Your task to perform on an android device: Add dell xps to the cart on target.com, then select checkout. Image 0: 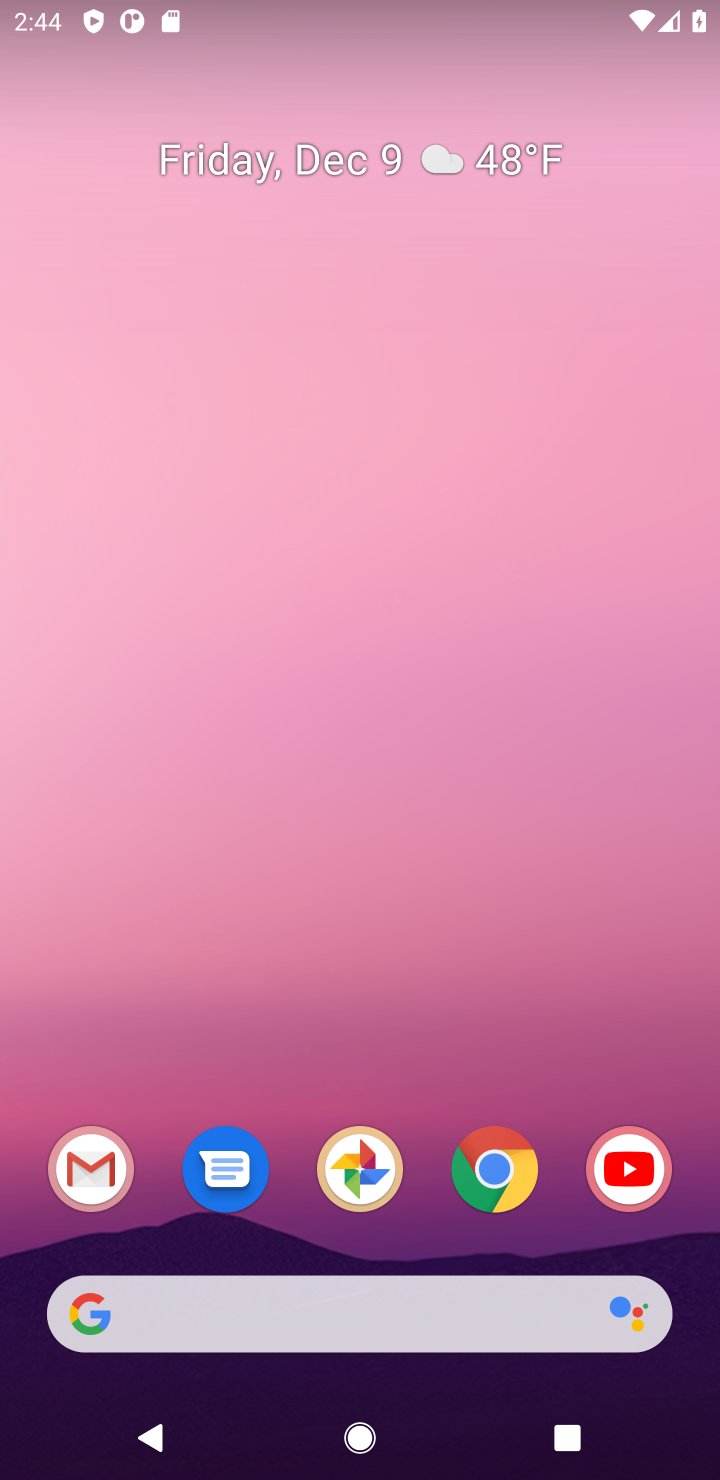
Step 0: click (502, 1149)
Your task to perform on an android device: Add dell xps to the cart on target.com, then select checkout. Image 1: 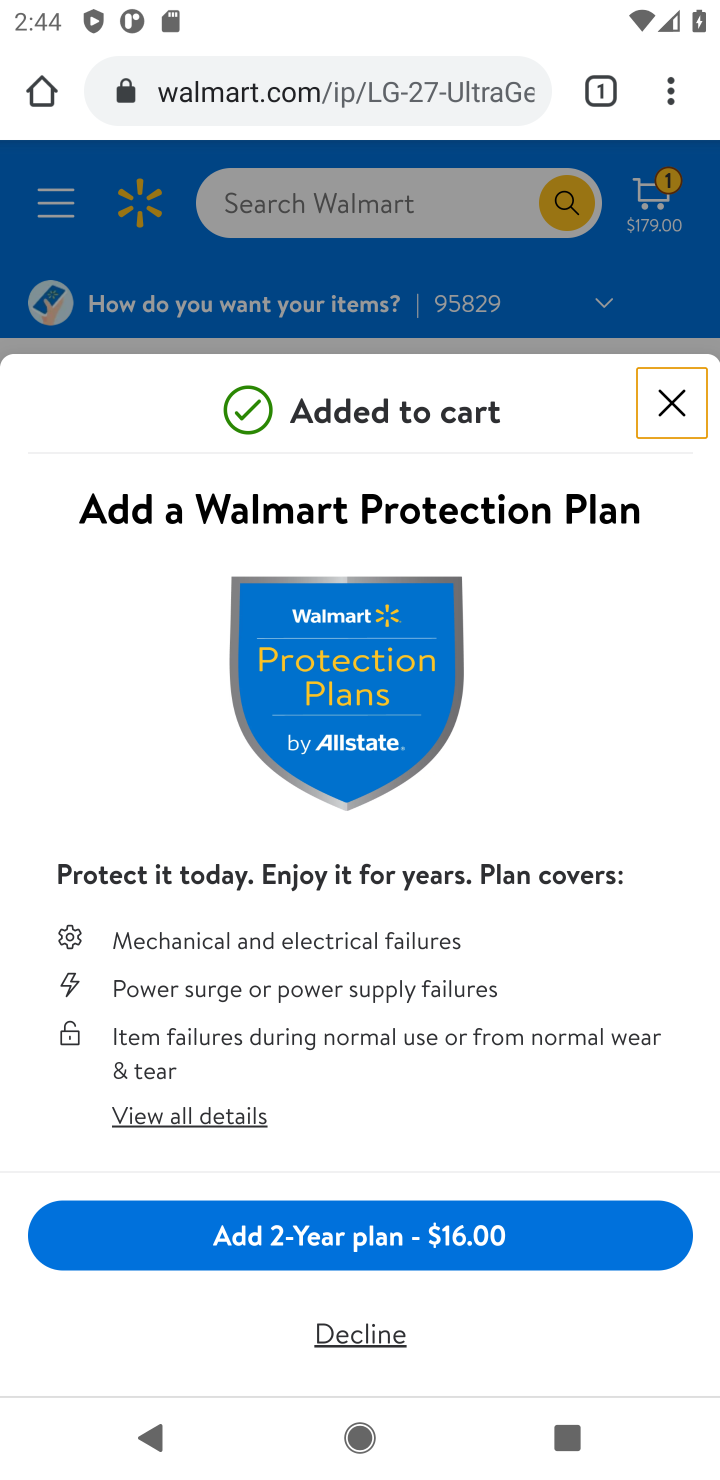
Step 1: click (338, 109)
Your task to perform on an android device: Add dell xps to the cart on target.com, then select checkout. Image 2: 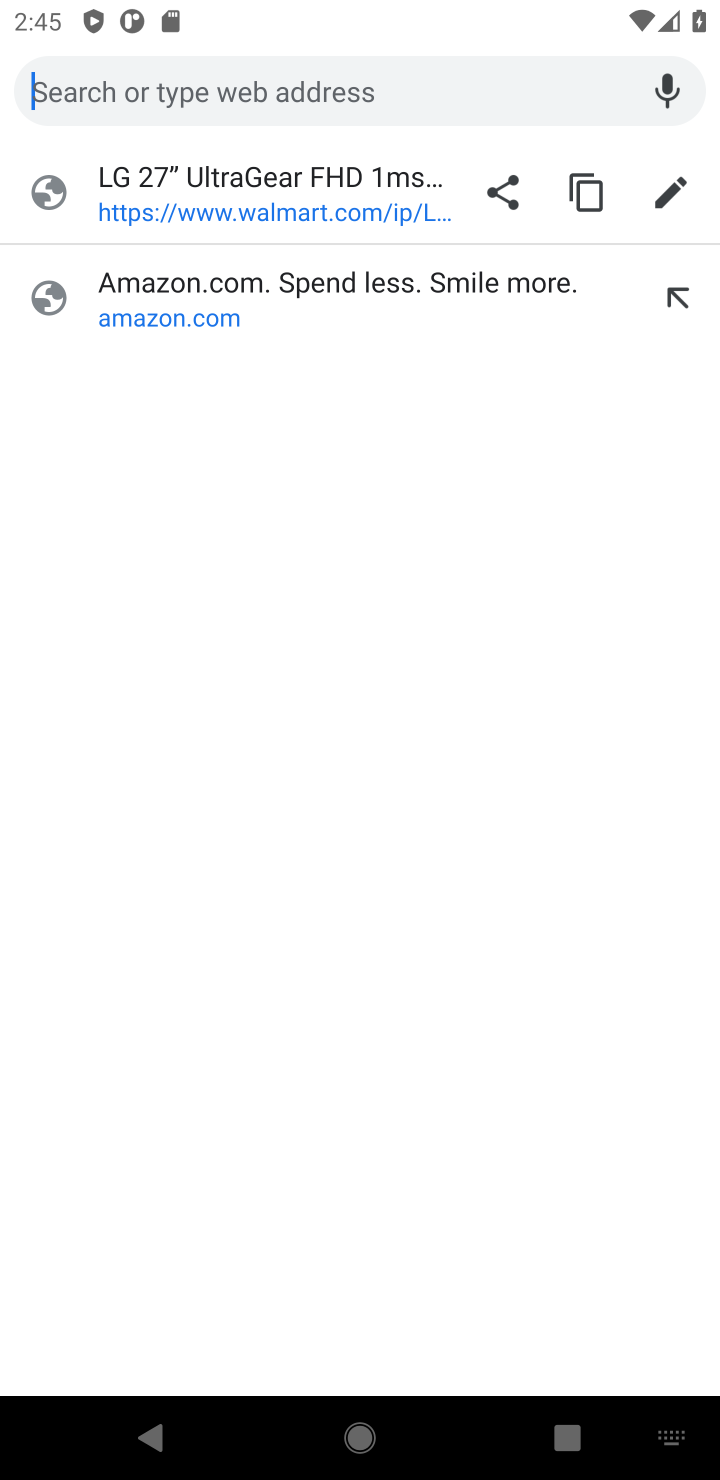
Step 2: press enter
Your task to perform on an android device: Add dell xps to the cart on target.com, then select checkout. Image 3: 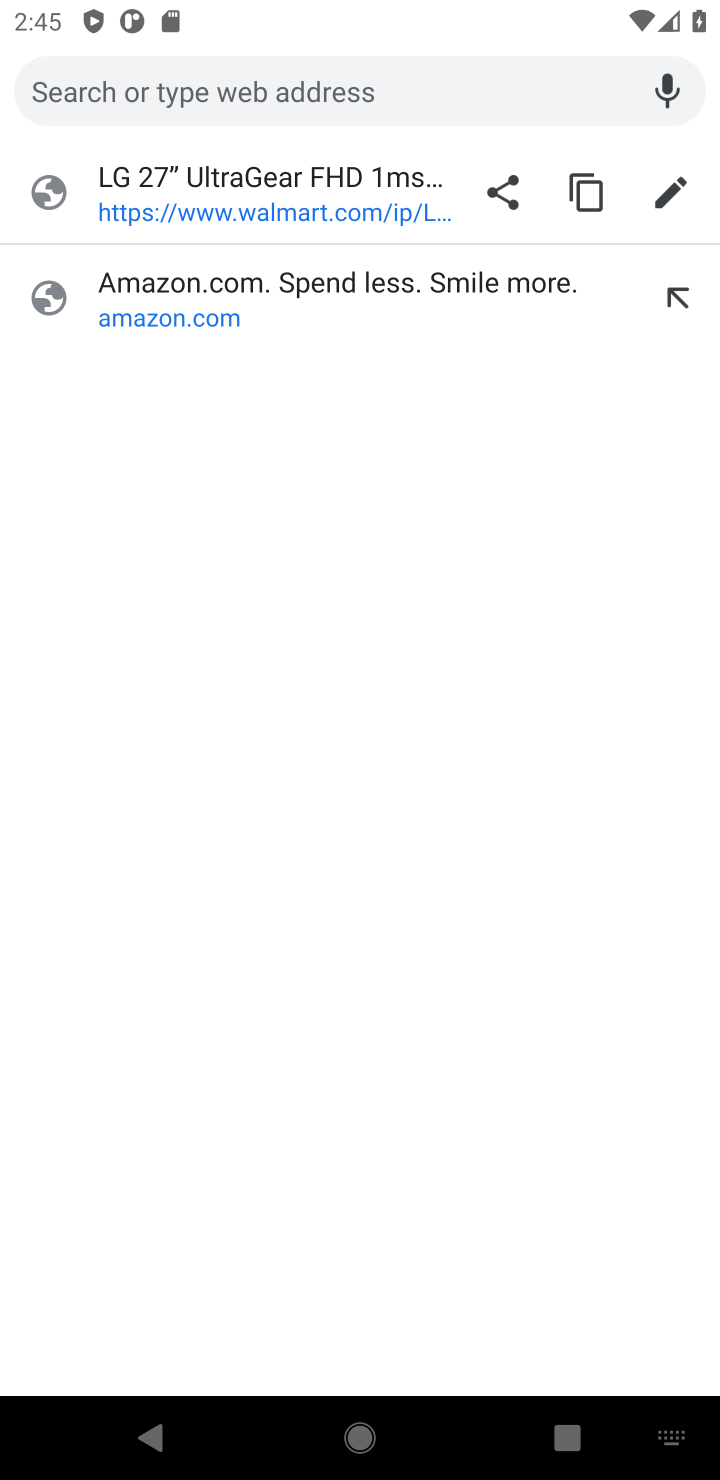
Step 3: type "target.com"
Your task to perform on an android device: Add dell xps to the cart on target.com, then select checkout. Image 4: 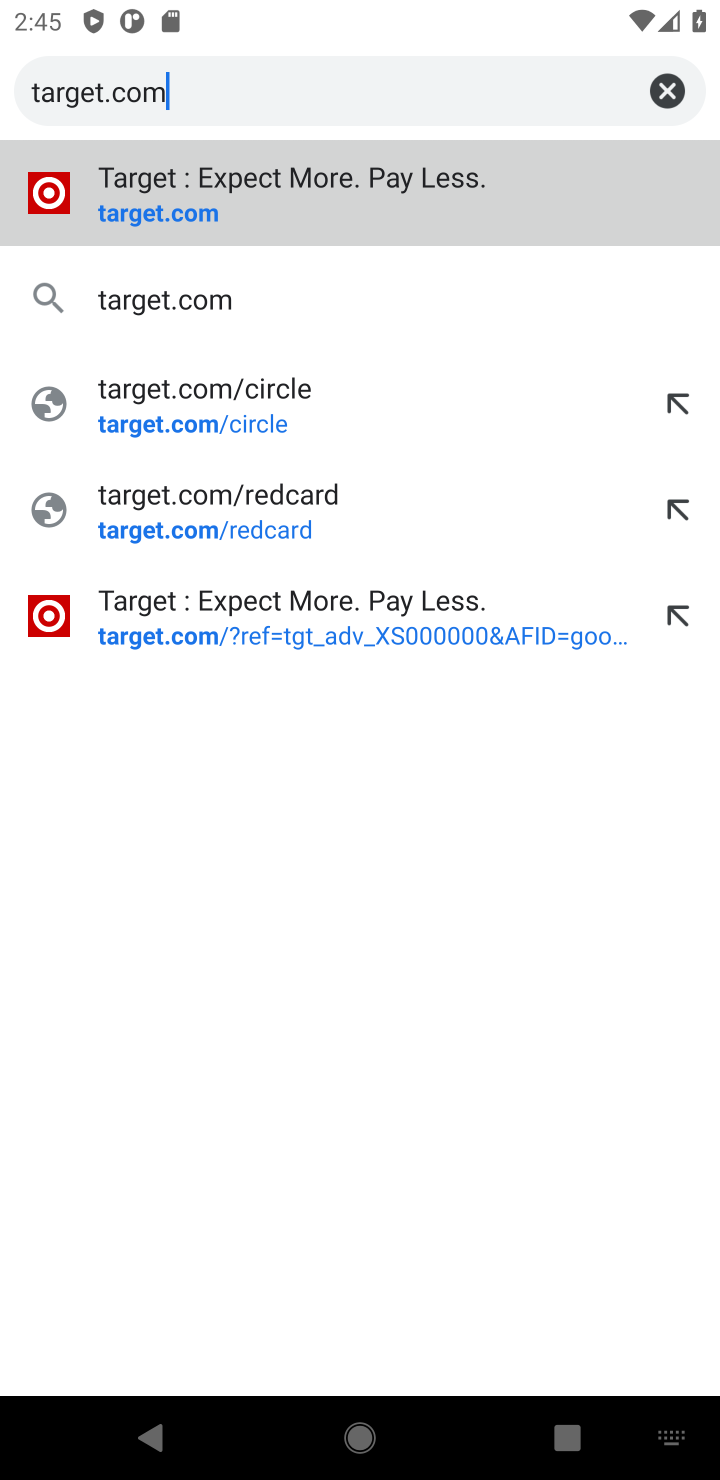
Step 4: click (203, 304)
Your task to perform on an android device: Add dell xps to the cart on target.com, then select checkout. Image 5: 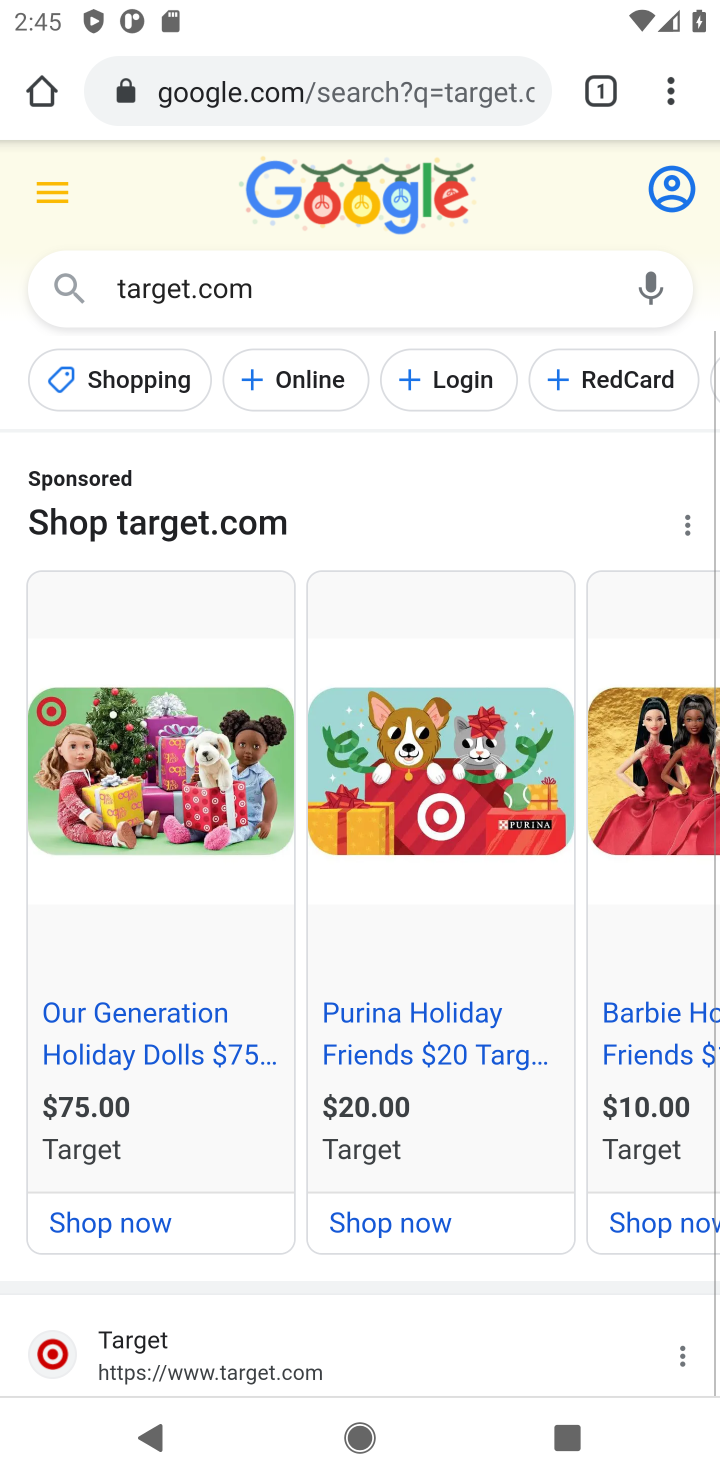
Step 5: click (226, 1368)
Your task to perform on an android device: Add dell xps to the cart on target.com, then select checkout. Image 6: 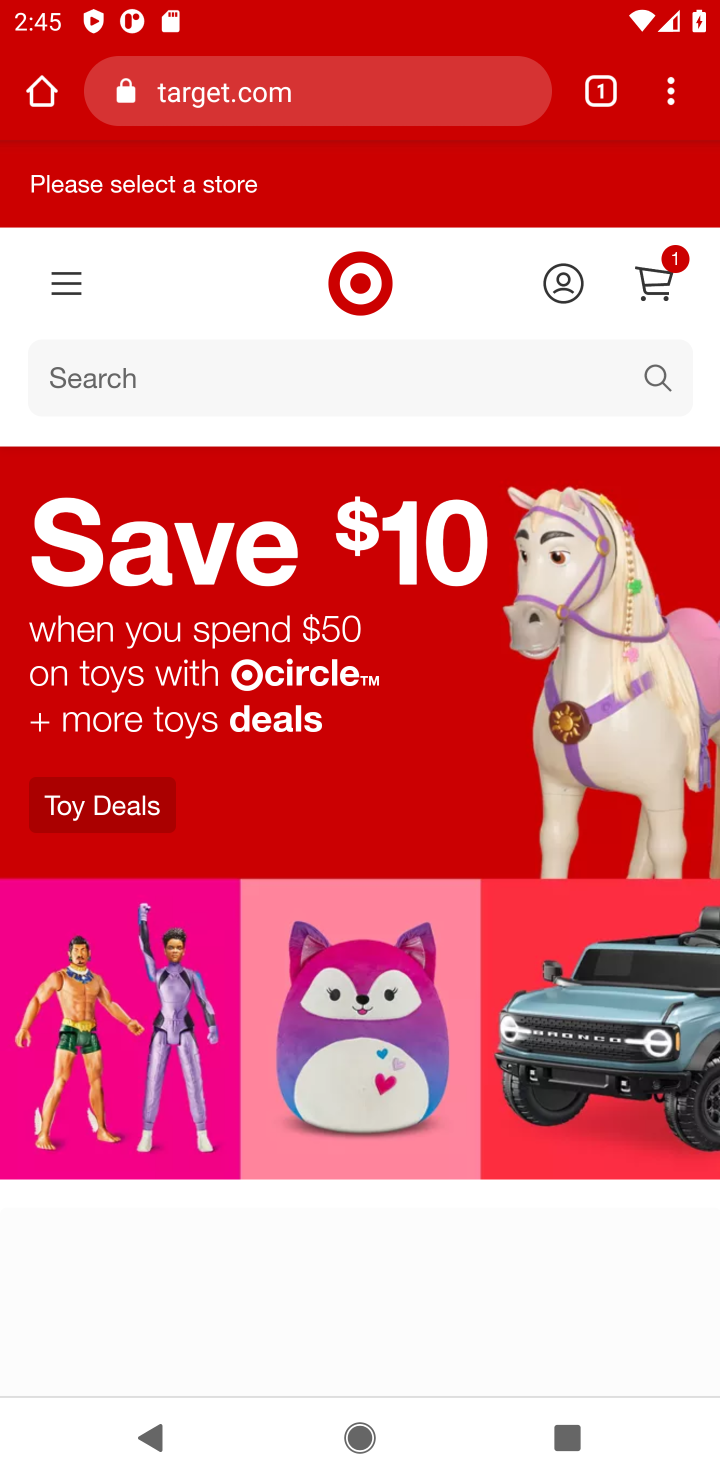
Step 6: click (654, 373)
Your task to perform on an android device: Add dell xps to the cart on target.com, then select checkout. Image 7: 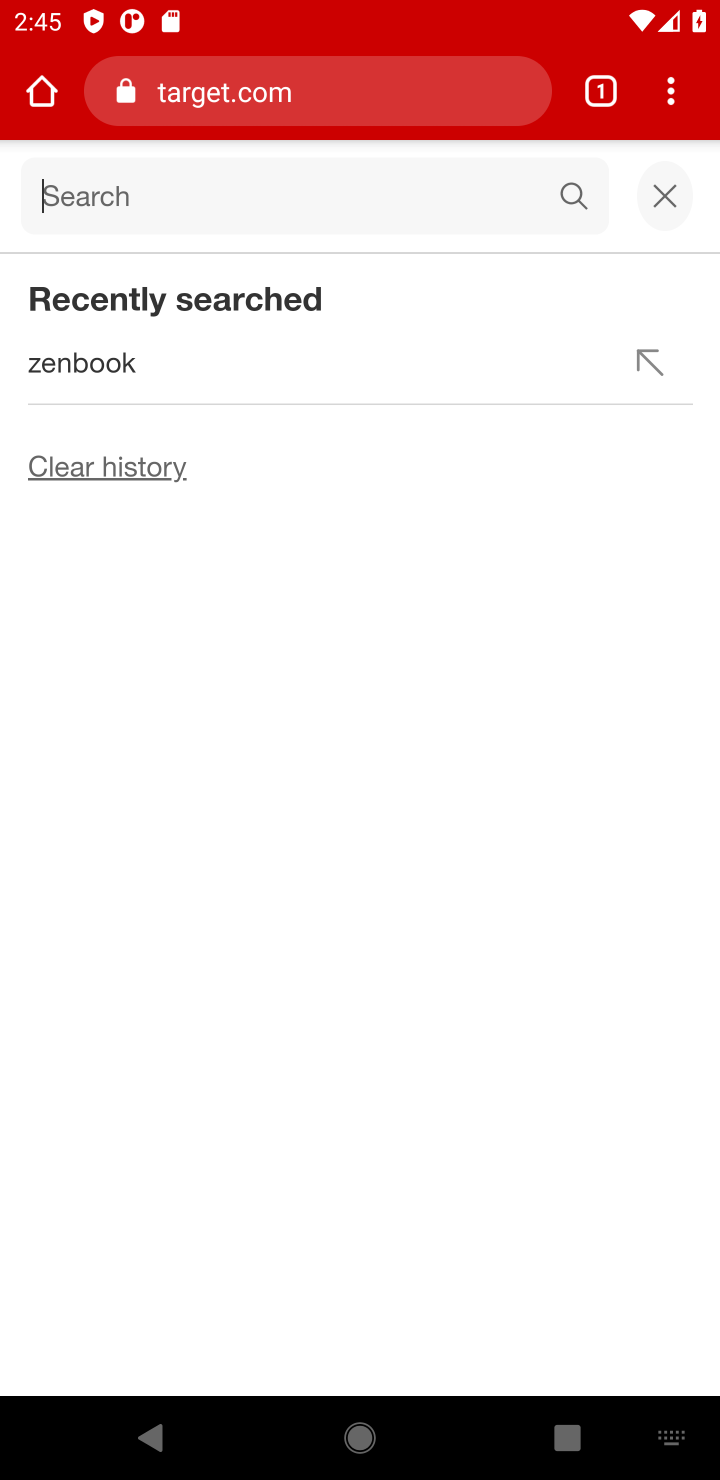
Step 7: press enter
Your task to perform on an android device: Add dell xps to the cart on target.com, then select checkout. Image 8: 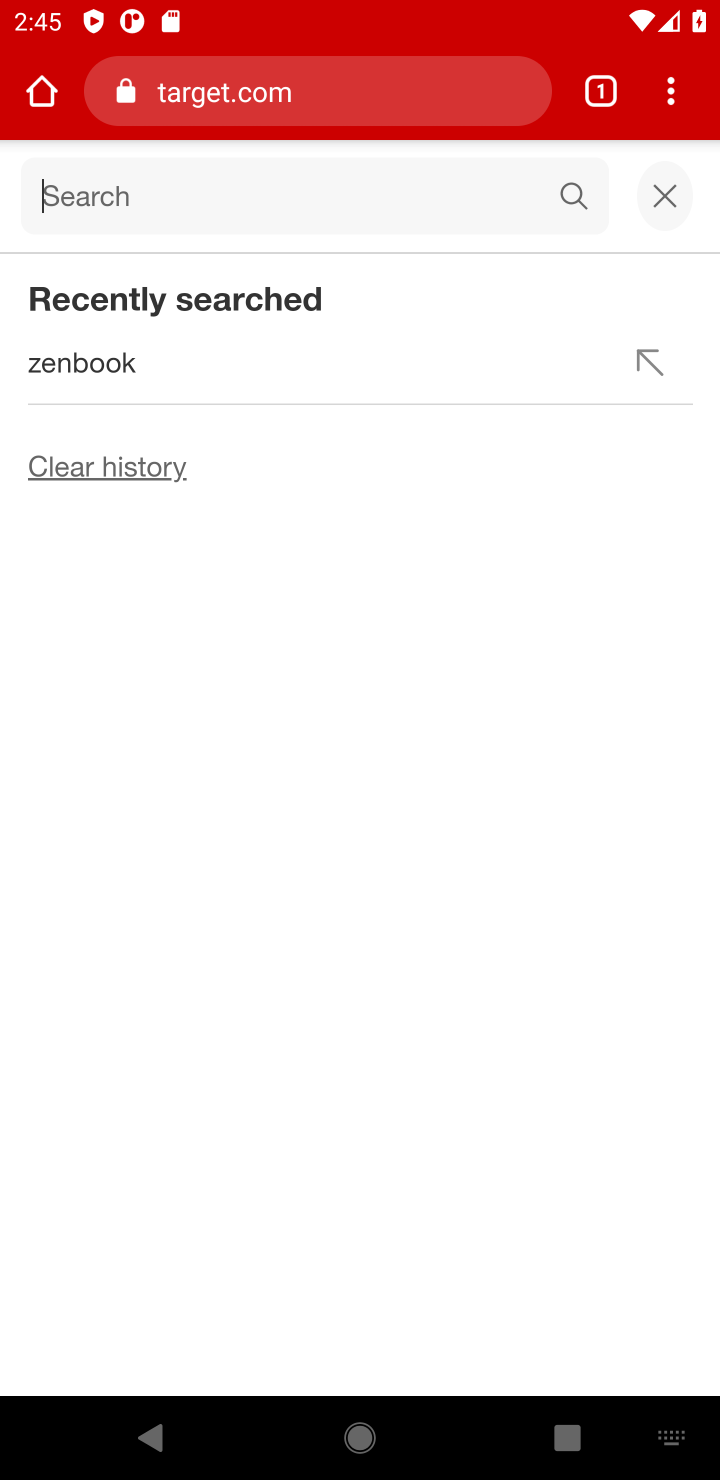
Step 8: type "dell xps"
Your task to perform on an android device: Add dell xps to the cart on target.com, then select checkout. Image 9: 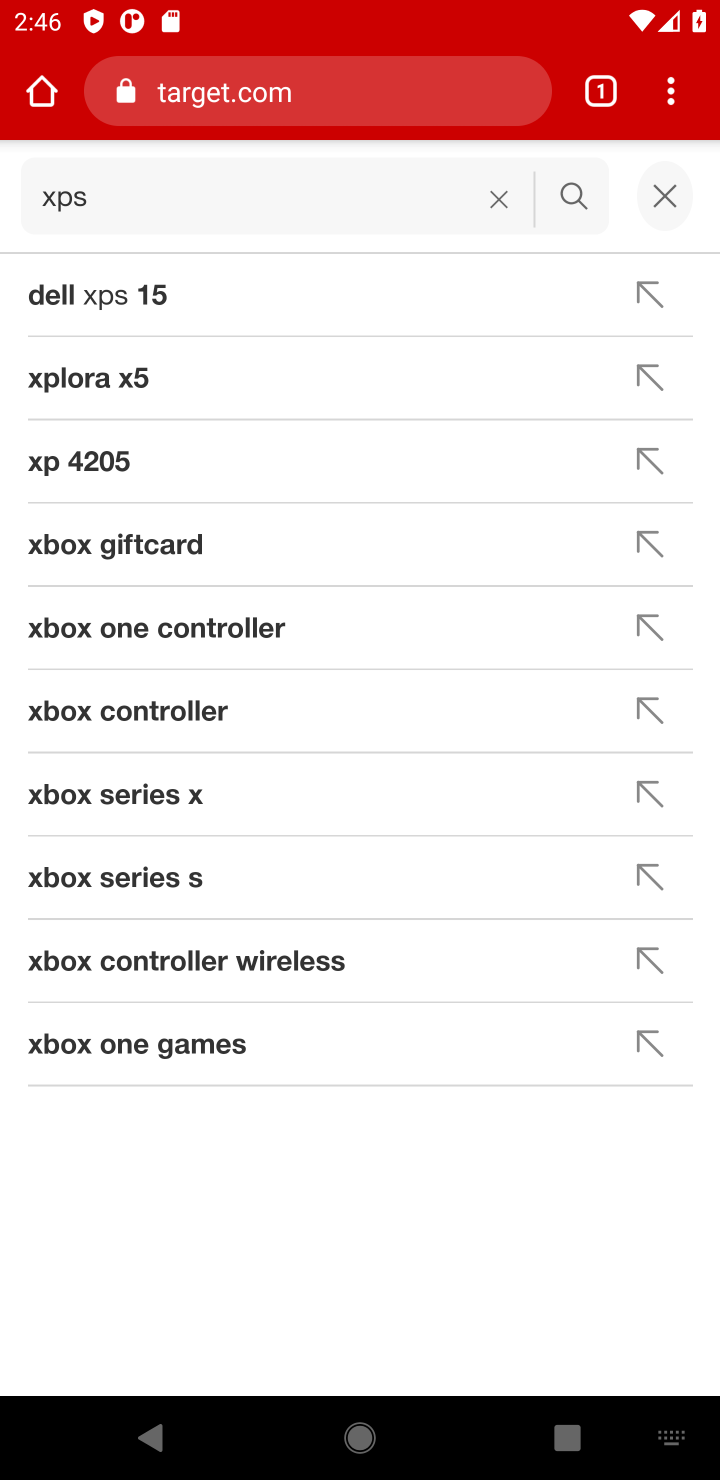
Step 9: click (497, 199)
Your task to perform on an android device: Add dell xps to the cart on target.com, then select checkout. Image 10: 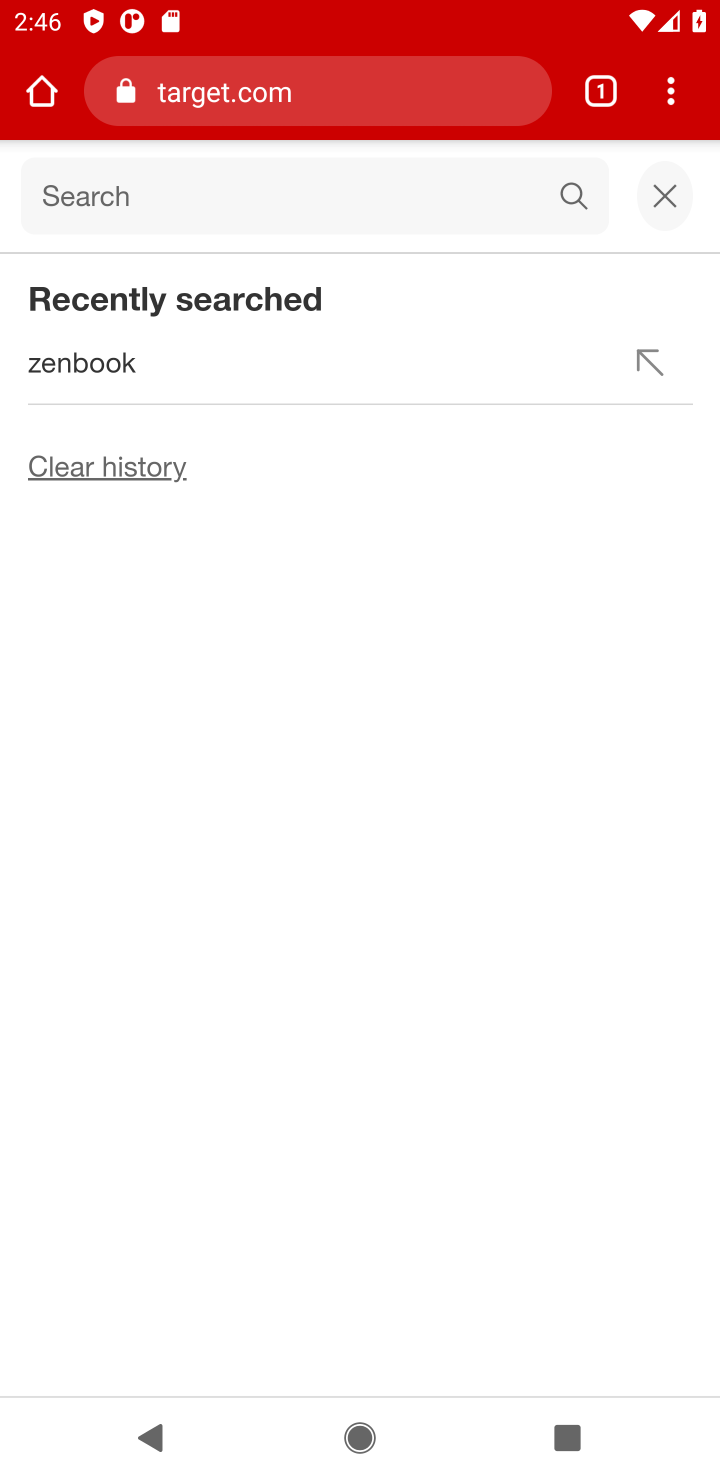
Step 10: click (416, 187)
Your task to perform on an android device: Add dell xps to the cart on target.com, then select checkout. Image 11: 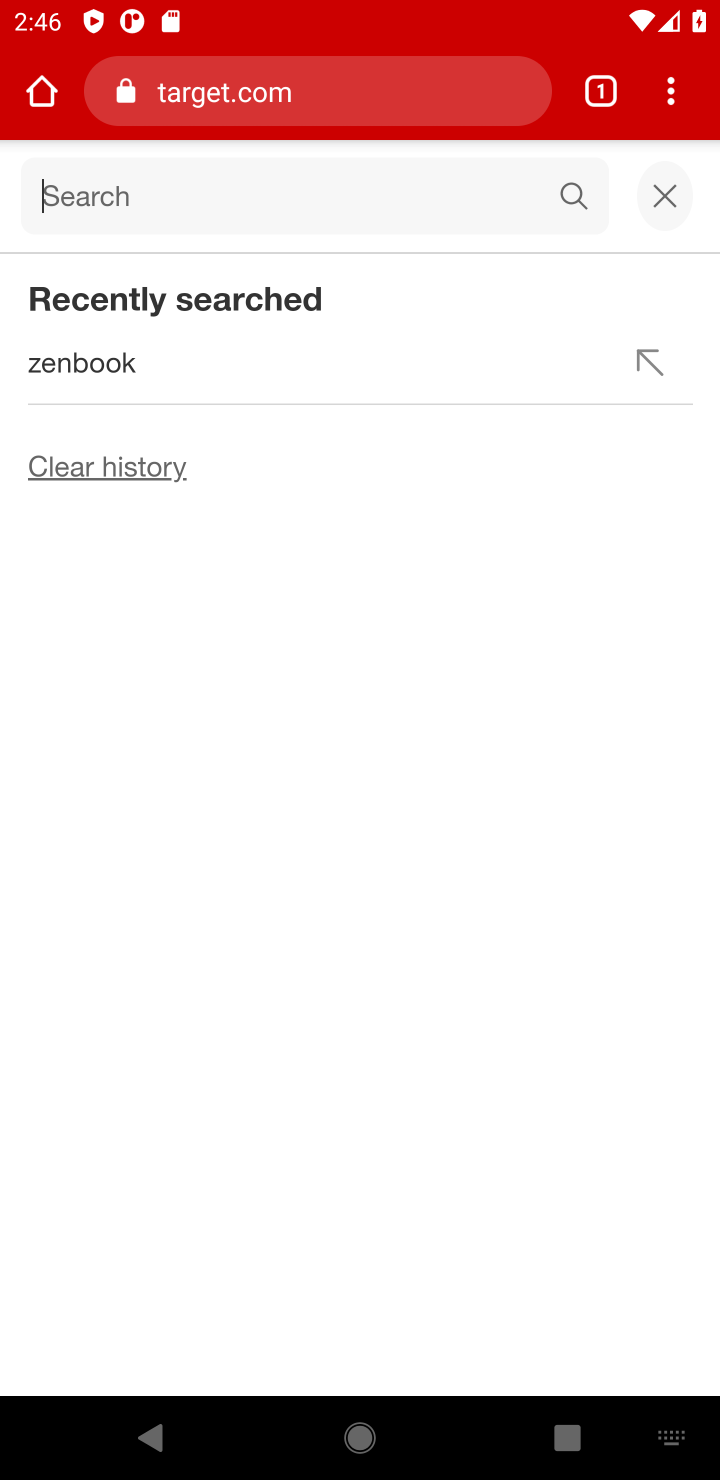
Step 11: press enter
Your task to perform on an android device: Add dell xps to the cart on target.com, then select checkout. Image 12: 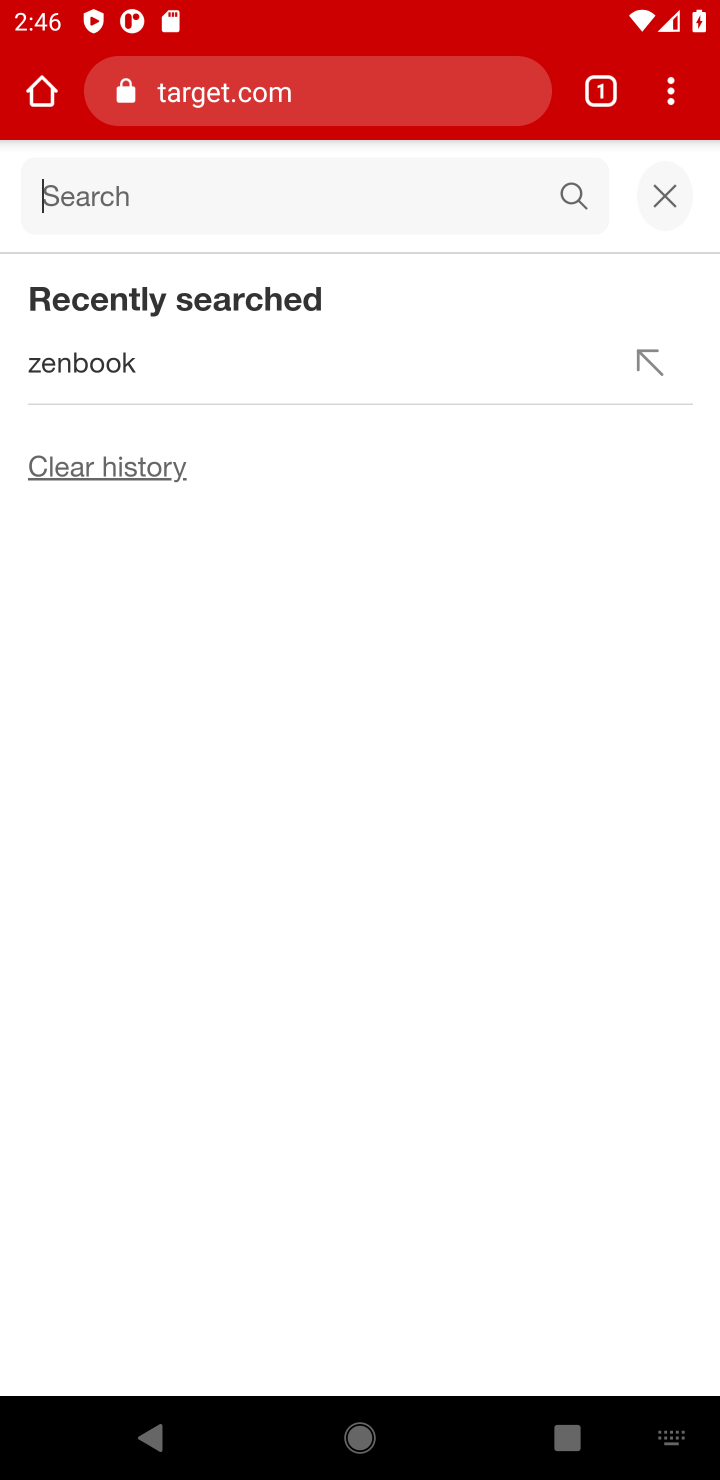
Step 12: type "dell xps"
Your task to perform on an android device: Add dell xps to the cart on target.com, then select checkout. Image 13: 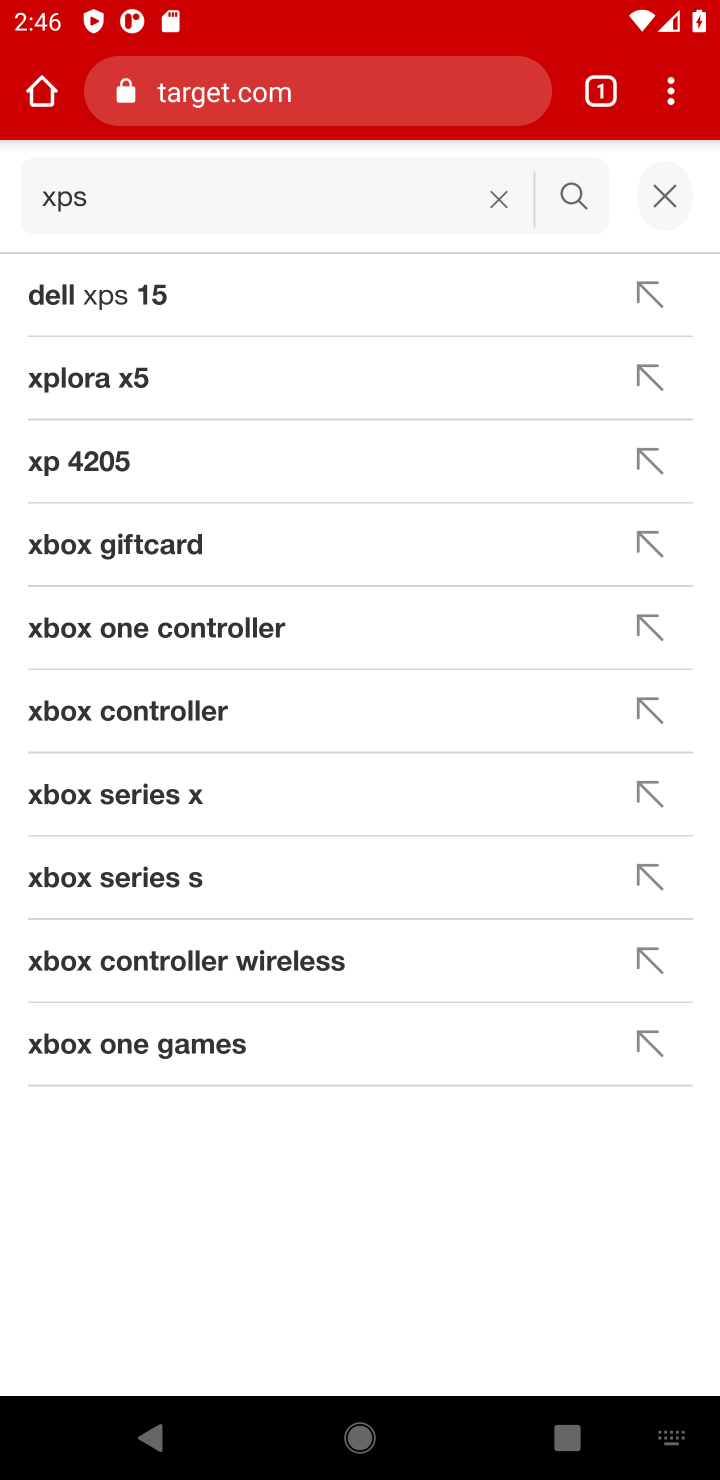
Step 13: click (96, 294)
Your task to perform on an android device: Add dell xps to the cart on target.com, then select checkout. Image 14: 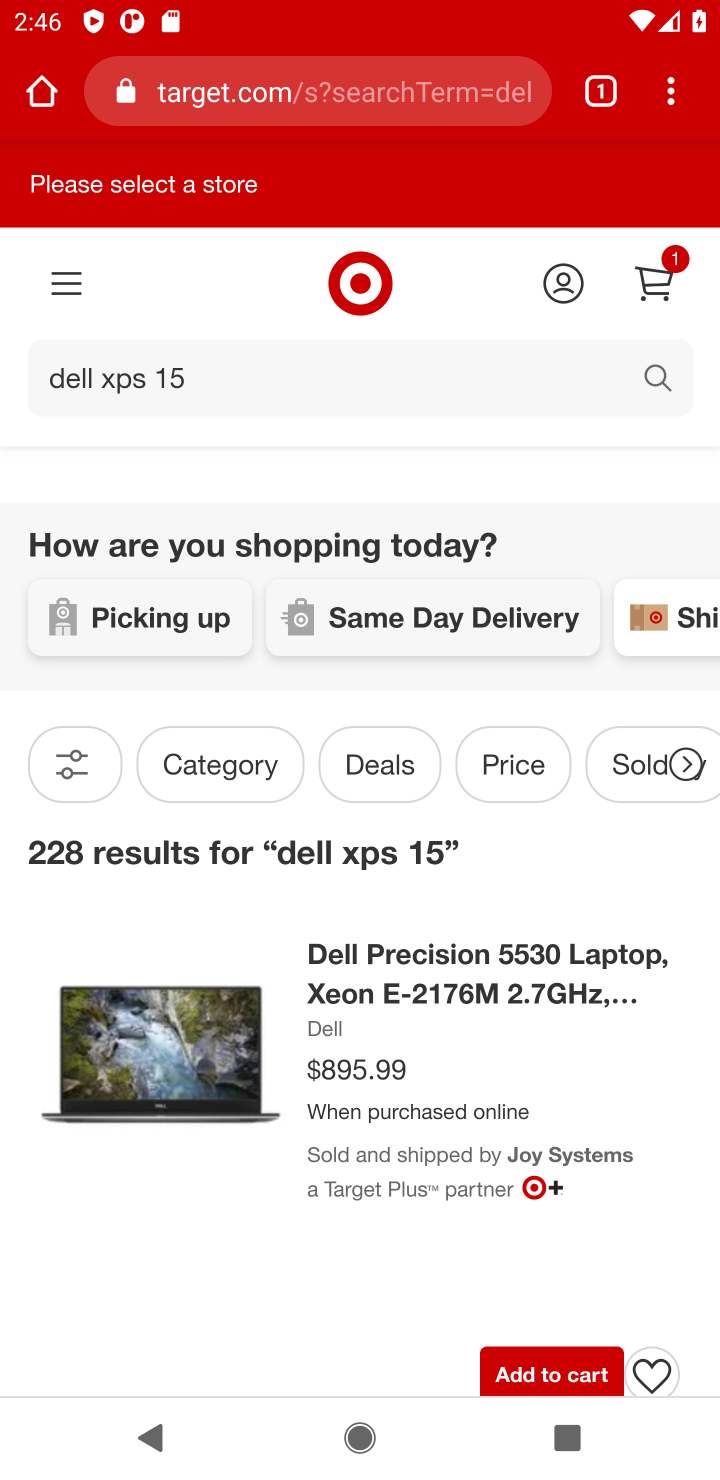
Step 14: drag from (325, 1136) to (383, 415)
Your task to perform on an android device: Add dell xps to the cart on target.com, then select checkout. Image 15: 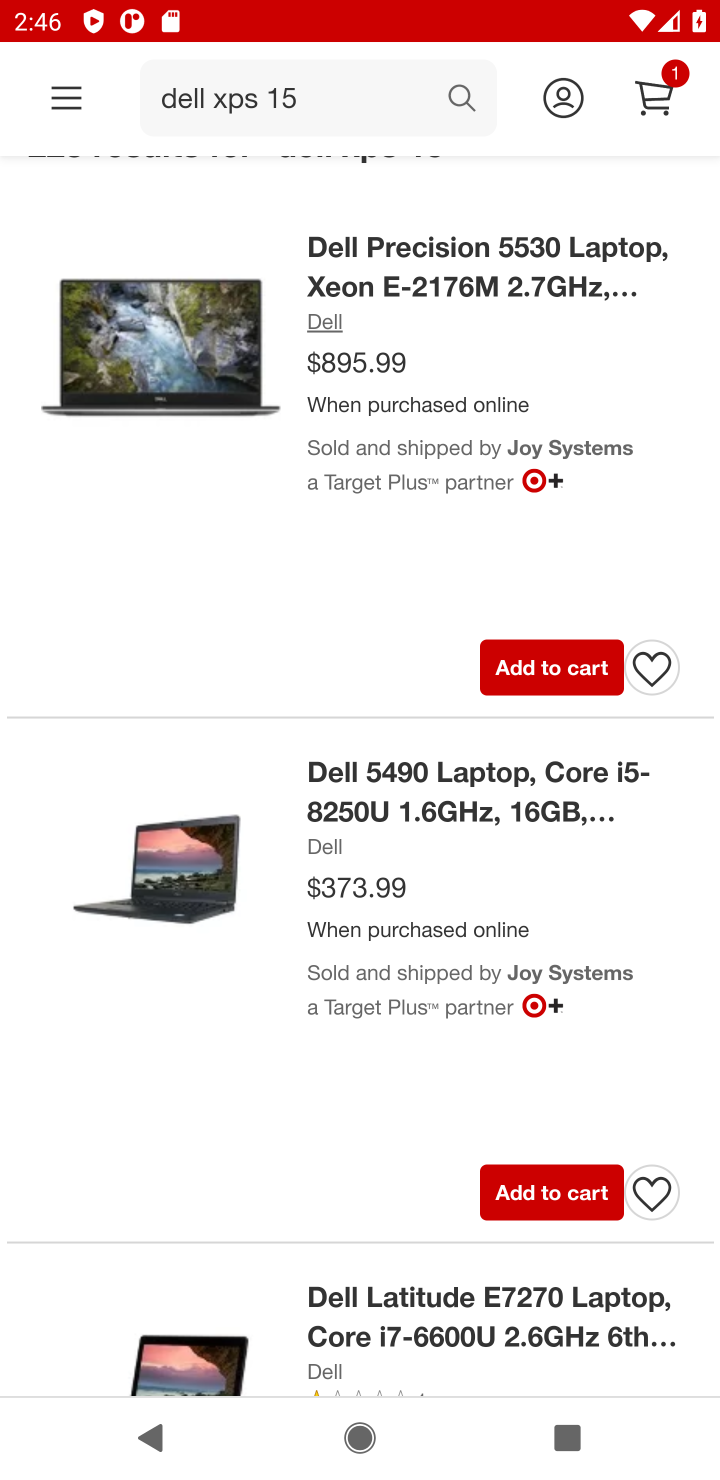
Step 15: drag from (460, 1216) to (522, 549)
Your task to perform on an android device: Add dell xps to the cart on target.com, then select checkout. Image 16: 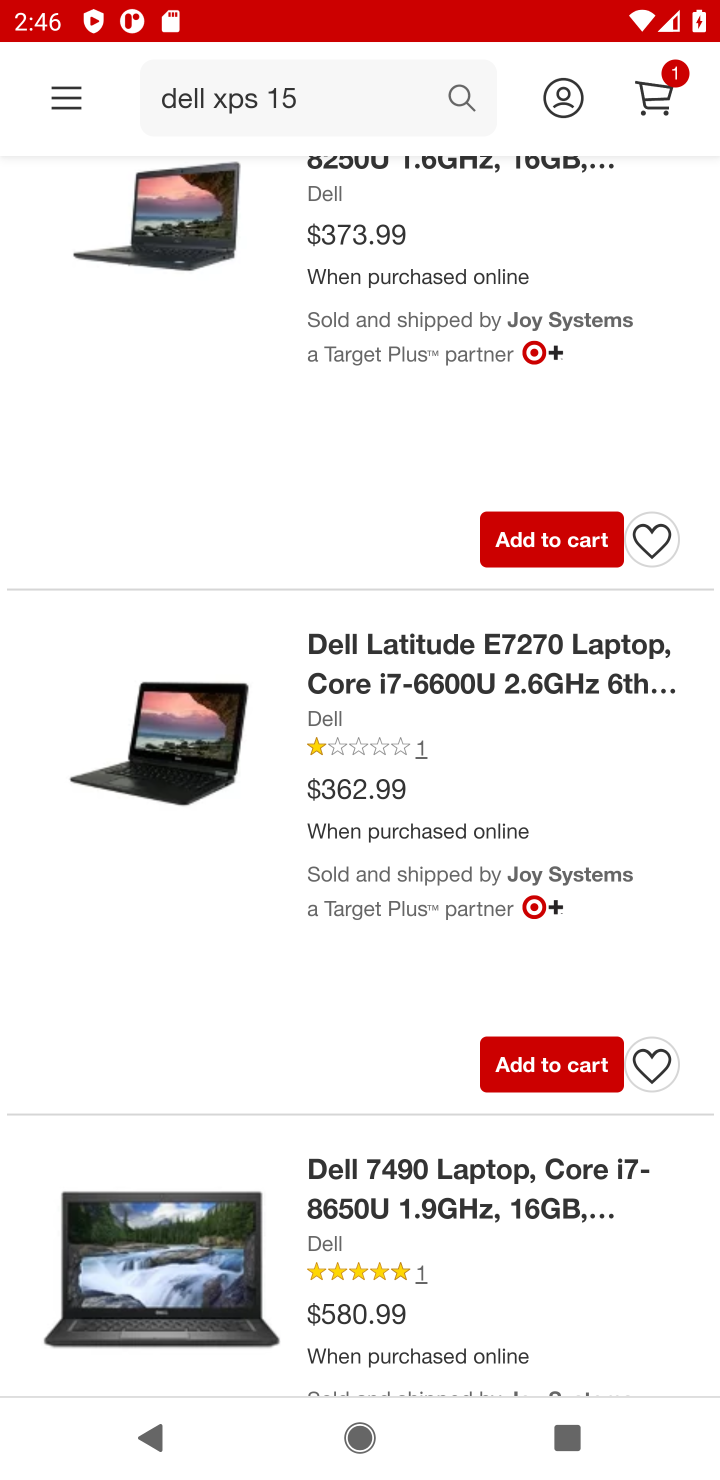
Step 16: click (452, 86)
Your task to perform on an android device: Add dell xps to the cart on target.com, then select checkout. Image 17: 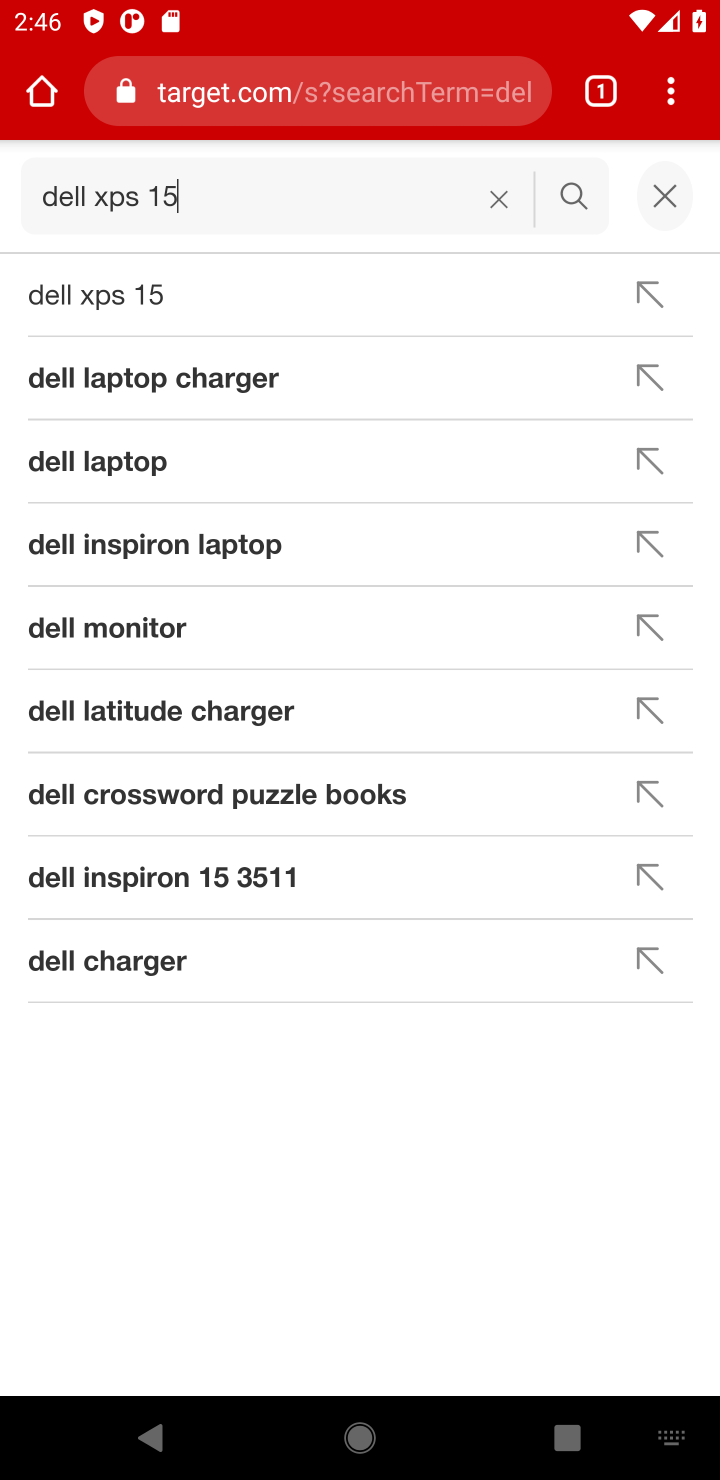
Step 17: click (393, 197)
Your task to perform on an android device: Add dell xps to the cart on target.com, then select checkout. Image 18: 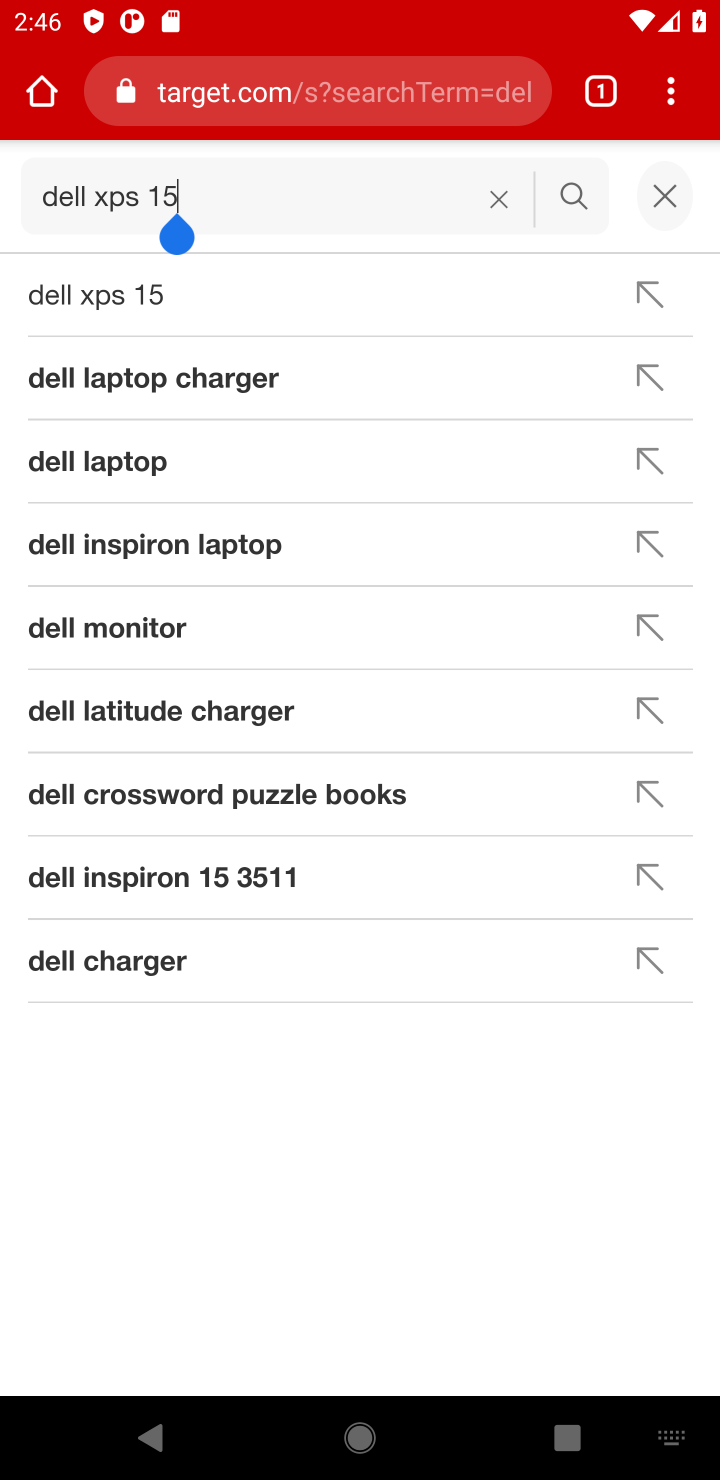
Step 18: click (496, 197)
Your task to perform on an android device: Add dell xps to the cart on target.com, then select checkout. Image 19: 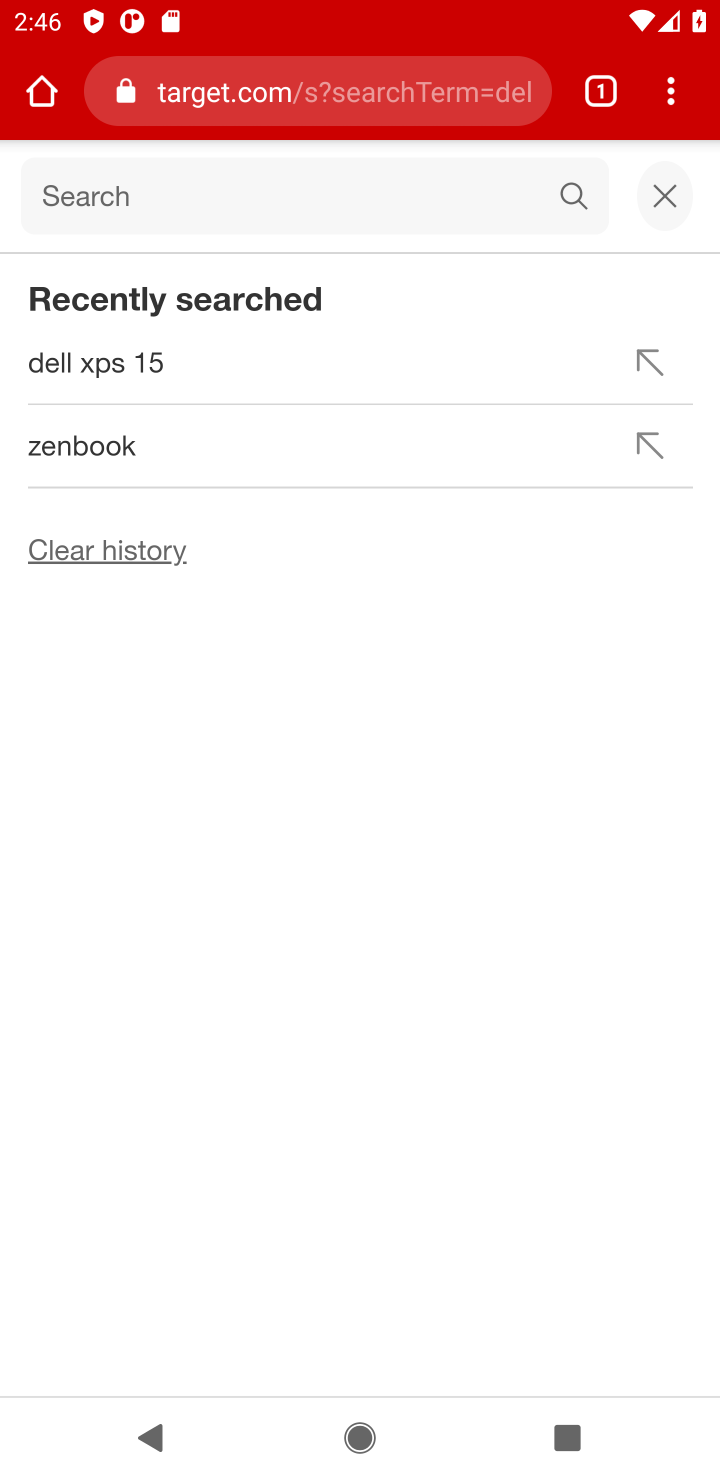
Step 19: type "dell xps"
Your task to perform on an android device: Add dell xps to the cart on target.com, then select checkout. Image 20: 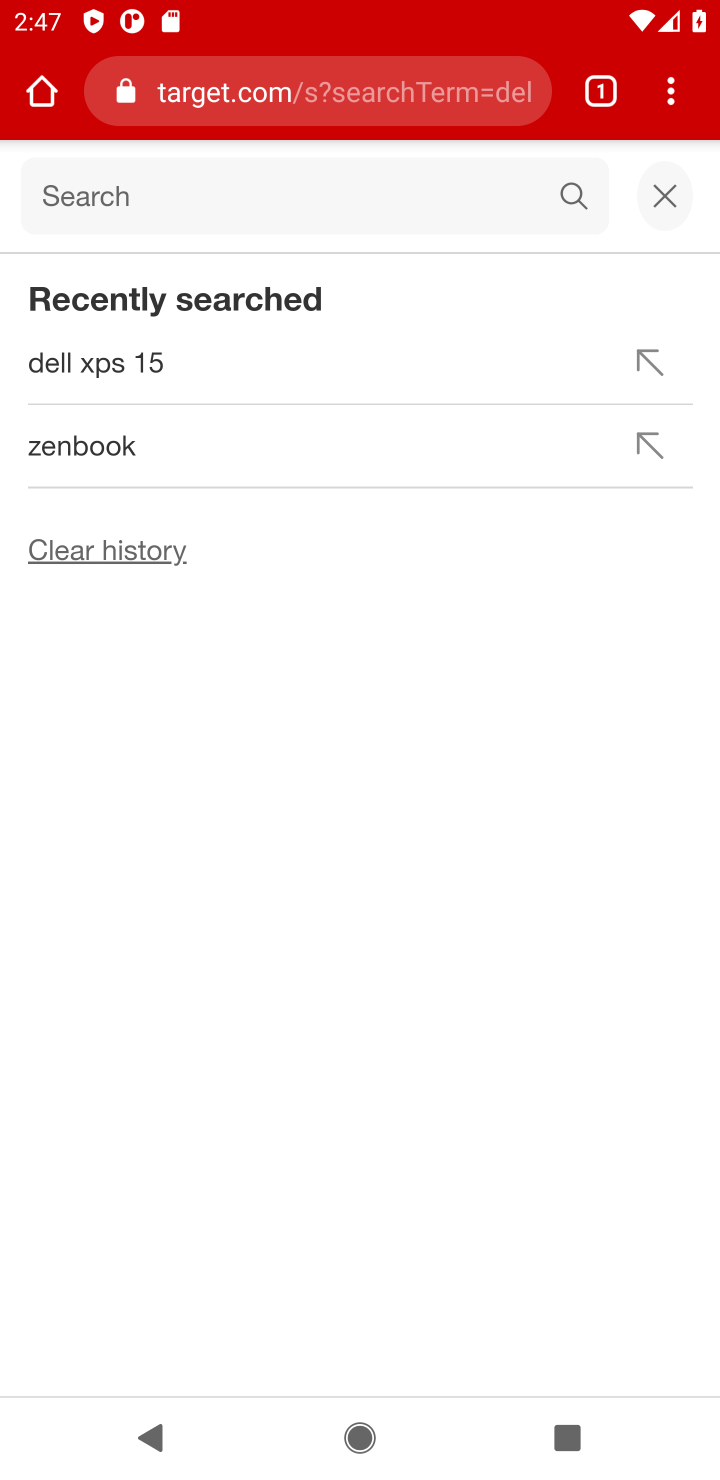
Step 20: click (477, 194)
Your task to perform on an android device: Add dell xps to the cart on target.com, then select checkout. Image 21: 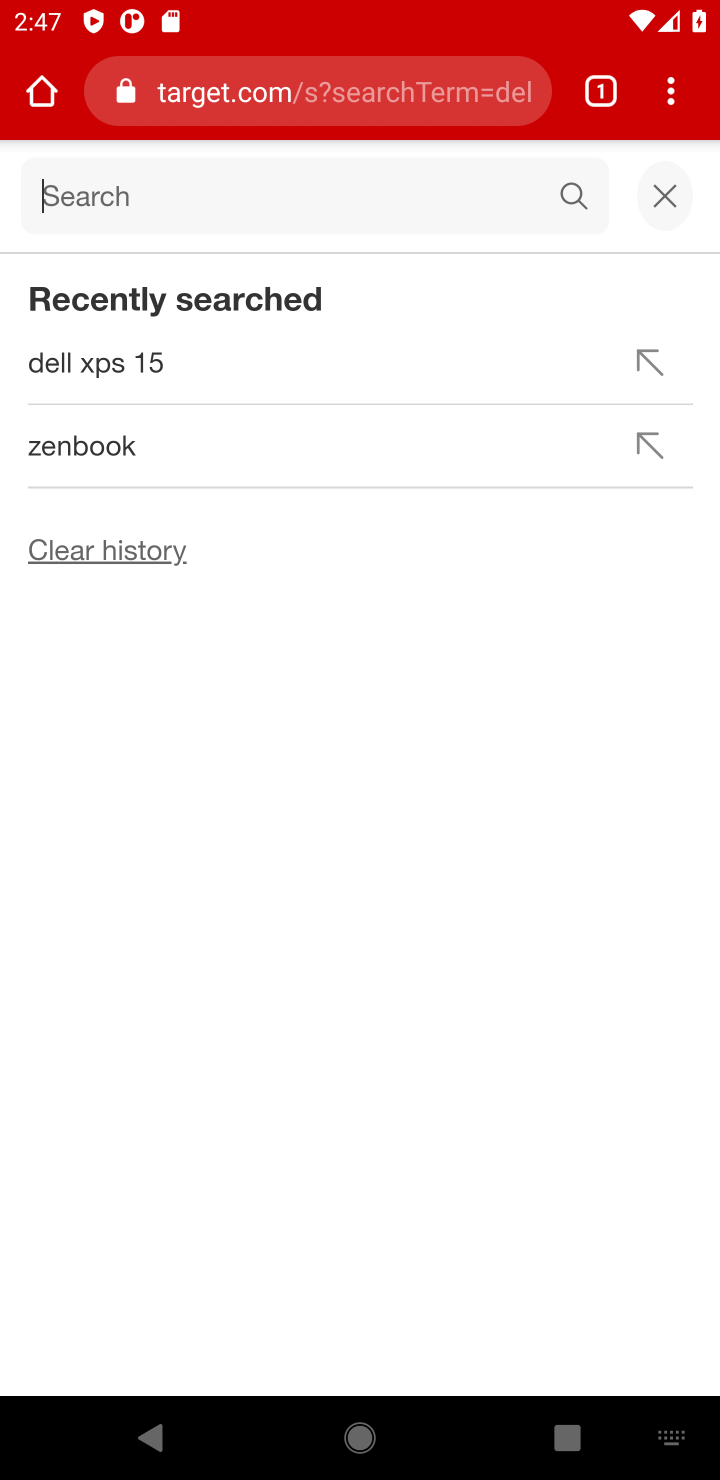
Step 21: press enter
Your task to perform on an android device: Add dell xps to the cart on target.com, then select checkout. Image 22: 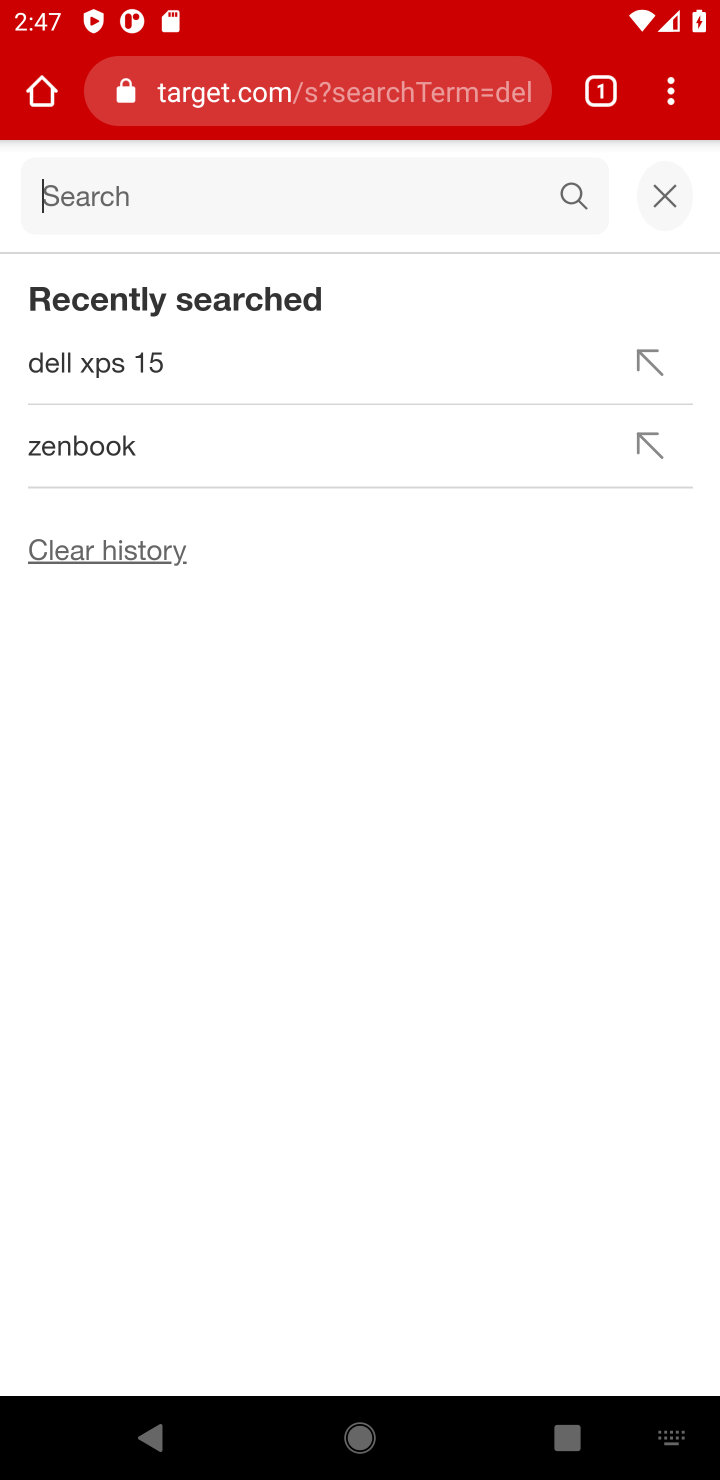
Step 22: type "dell xps"
Your task to perform on an android device: Add dell xps to the cart on target.com, then select checkout. Image 23: 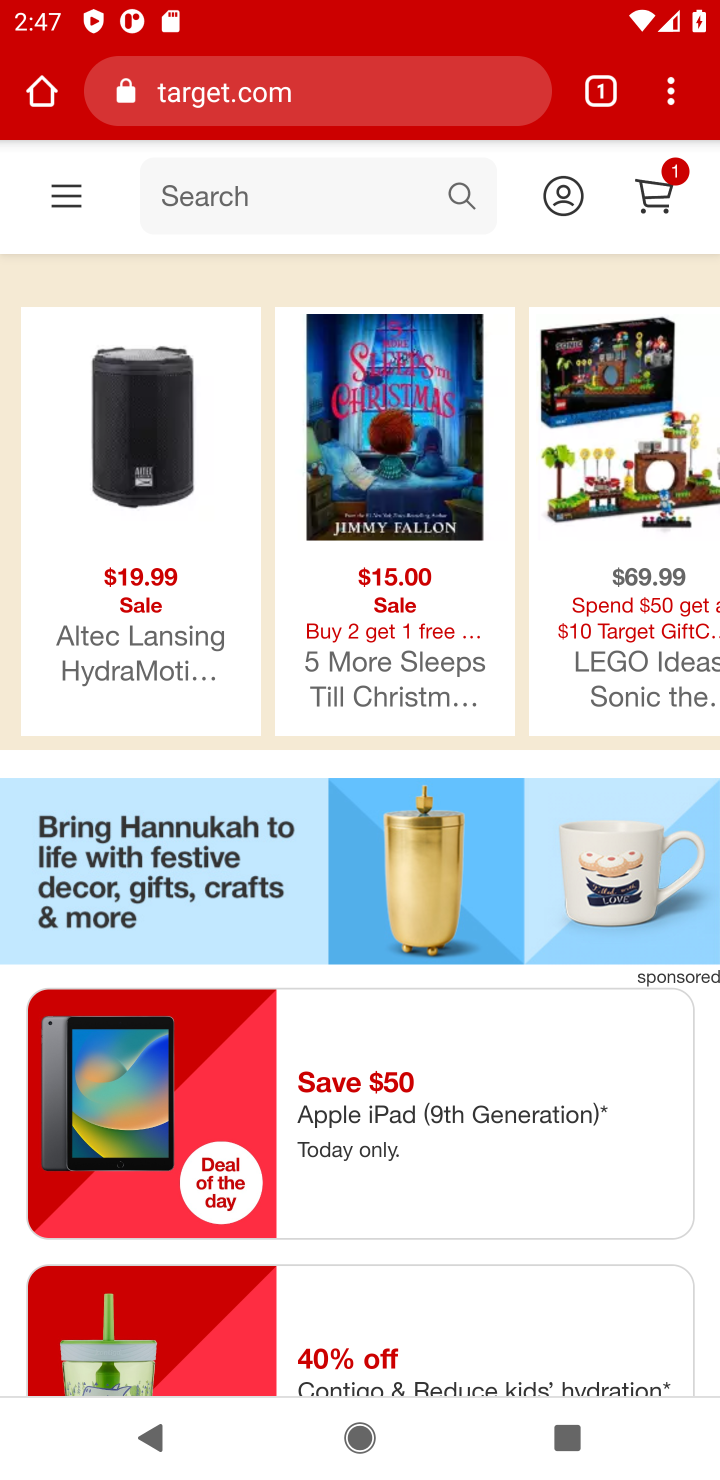
Step 23: click (394, 189)
Your task to perform on an android device: Add dell xps to the cart on target.com, then select checkout. Image 24: 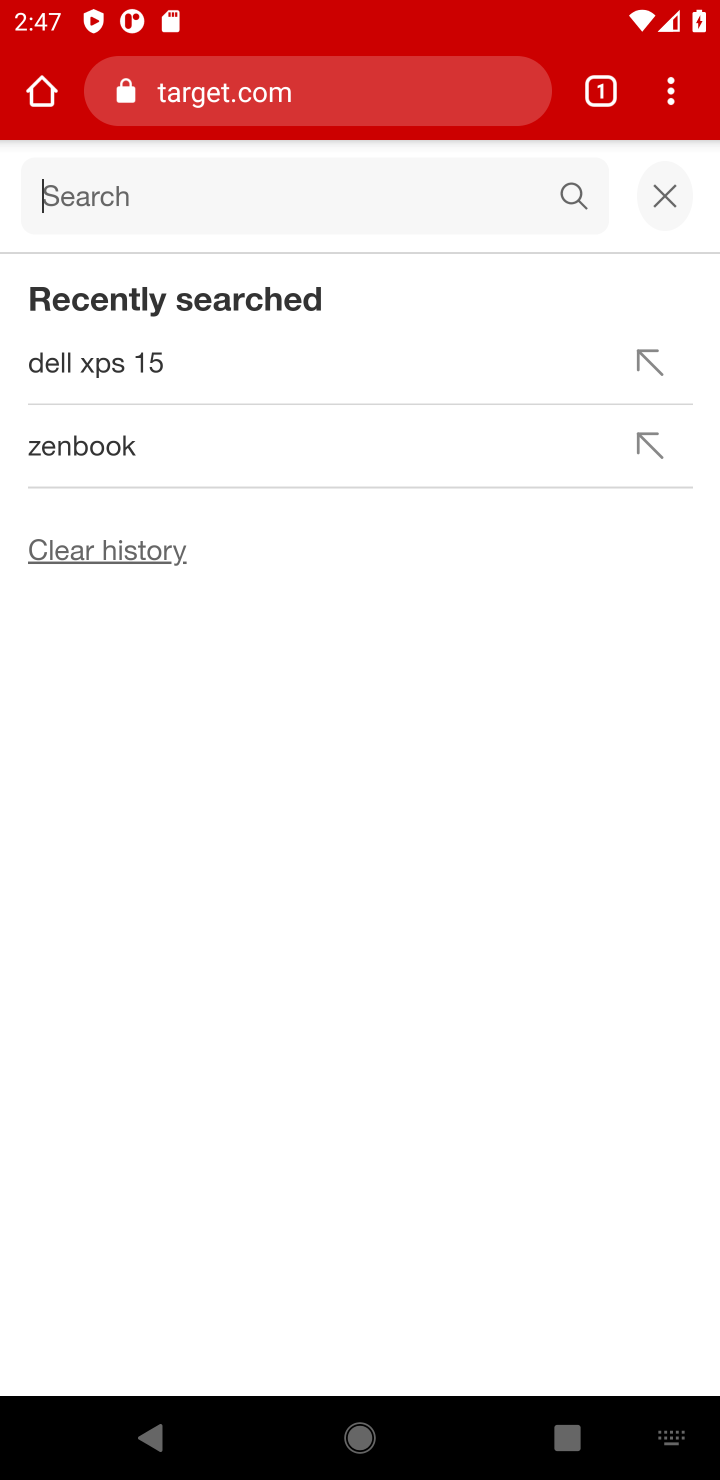
Step 24: press enter
Your task to perform on an android device: Add dell xps to the cart on target.com, then select checkout. Image 25: 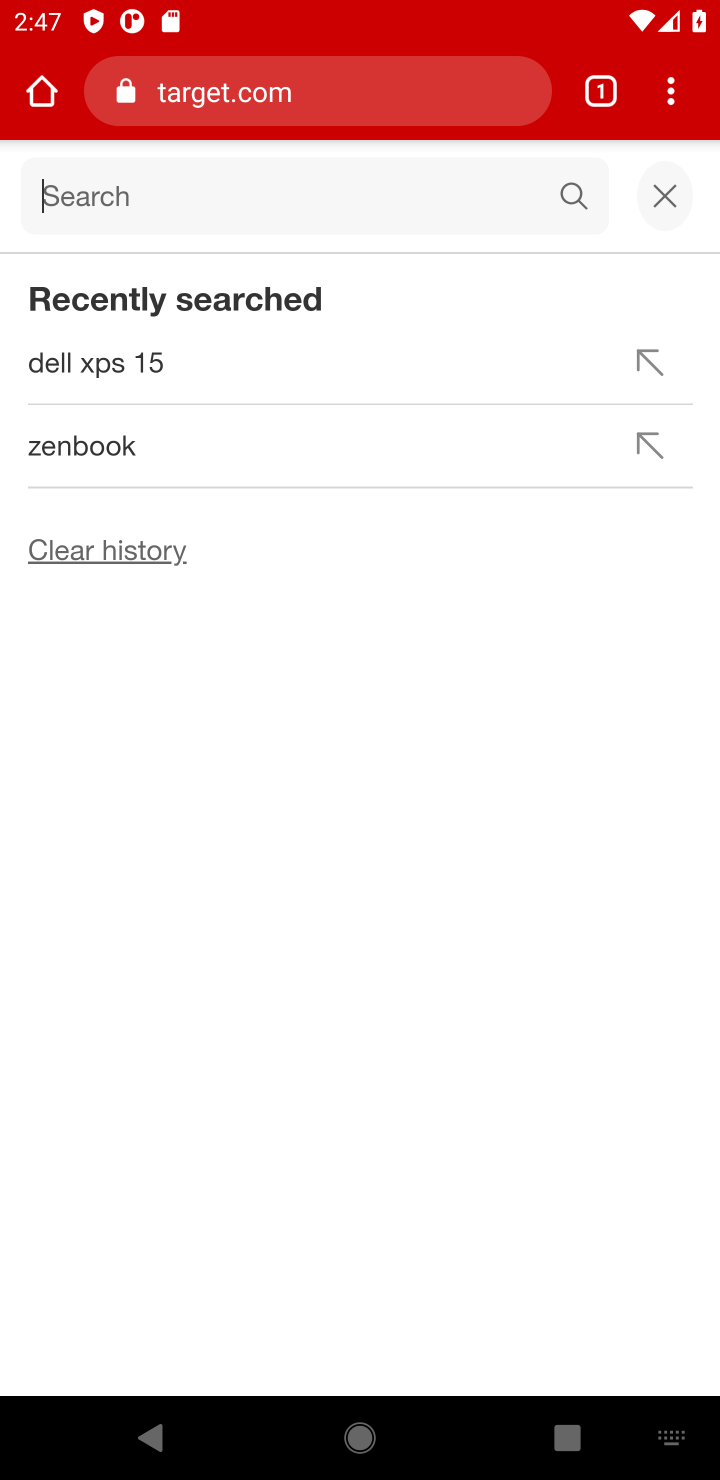
Step 25: type "dell xps"
Your task to perform on an android device: Add dell xps to the cart on target.com, then select checkout. Image 26: 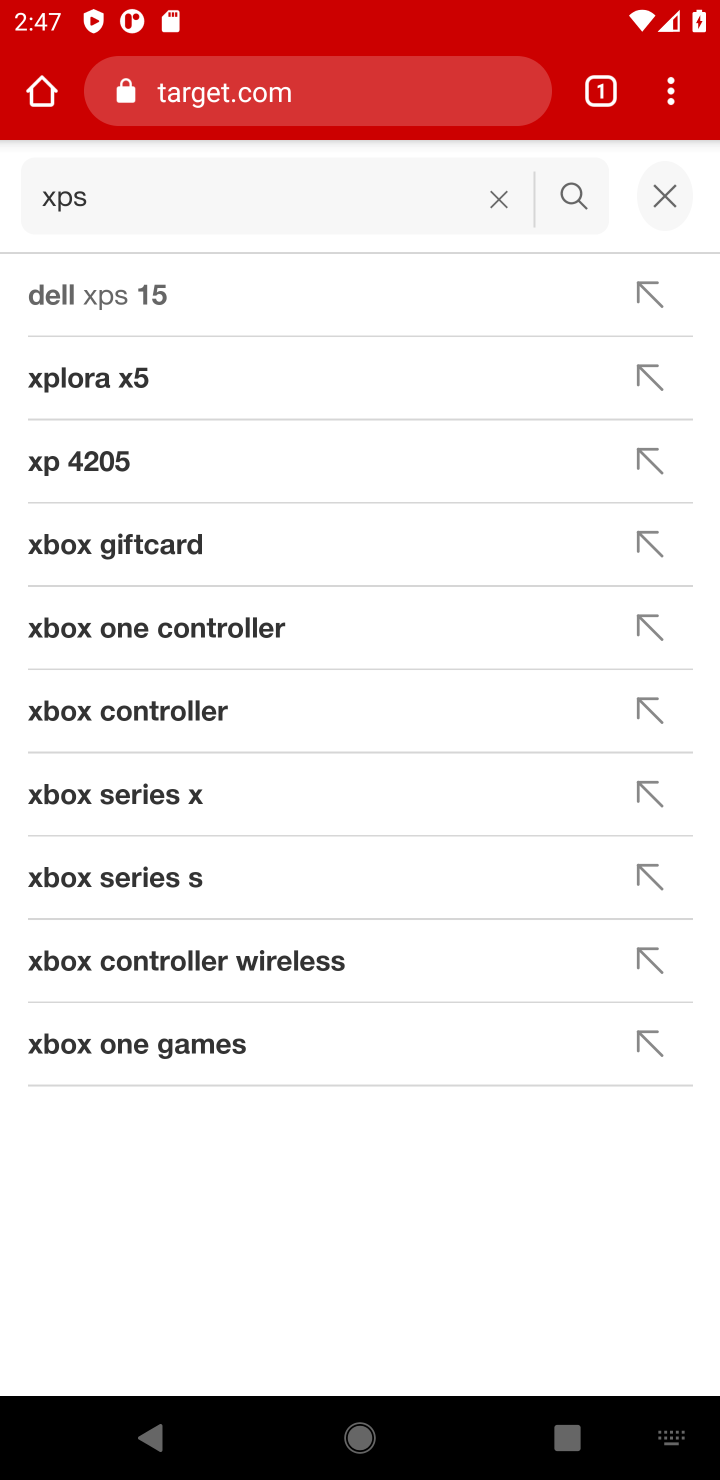
Step 26: task complete